Your task to perform on an android device: turn off notifications in google photos Image 0: 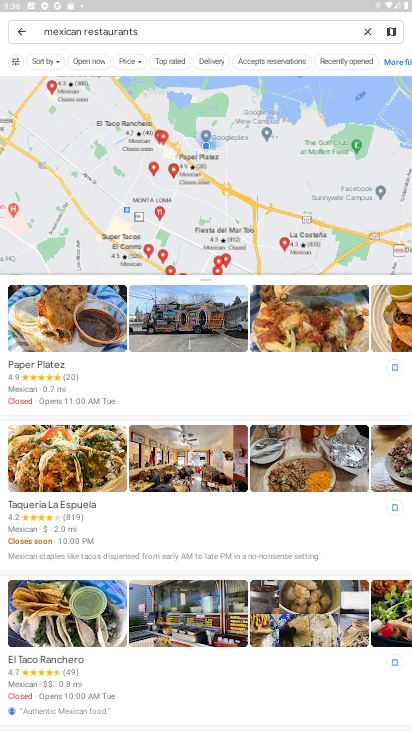
Step 0: task complete